Your task to perform on an android device: uninstall "Venmo" Image 0: 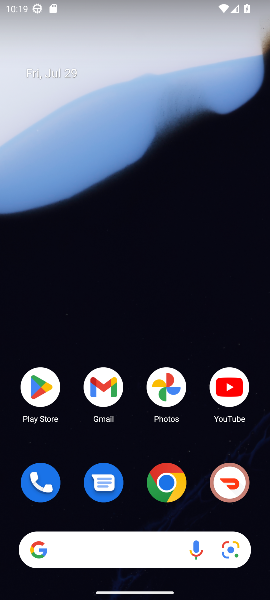
Step 0: click (39, 383)
Your task to perform on an android device: uninstall "Venmo" Image 1: 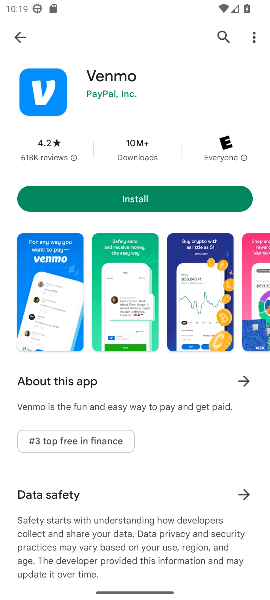
Step 1: task complete